Your task to perform on an android device: delete a single message in the gmail app Image 0: 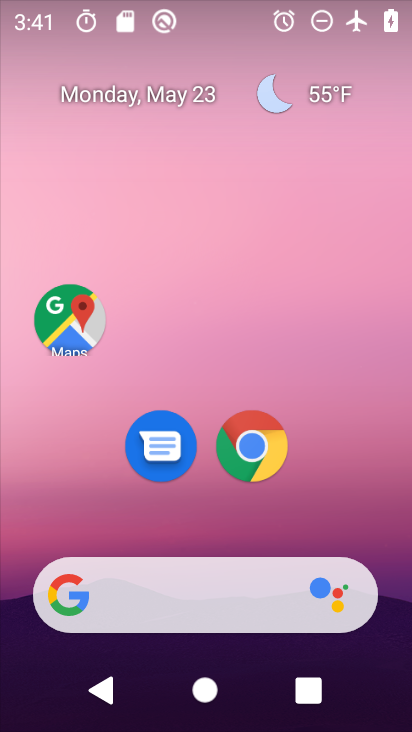
Step 0: drag from (218, 531) to (194, 191)
Your task to perform on an android device: delete a single message in the gmail app Image 1: 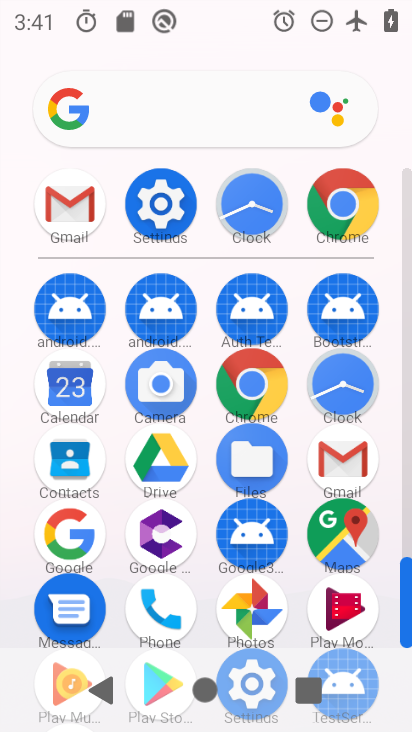
Step 1: click (317, 458)
Your task to perform on an android device: delete a single message in the gmail app Image 2: 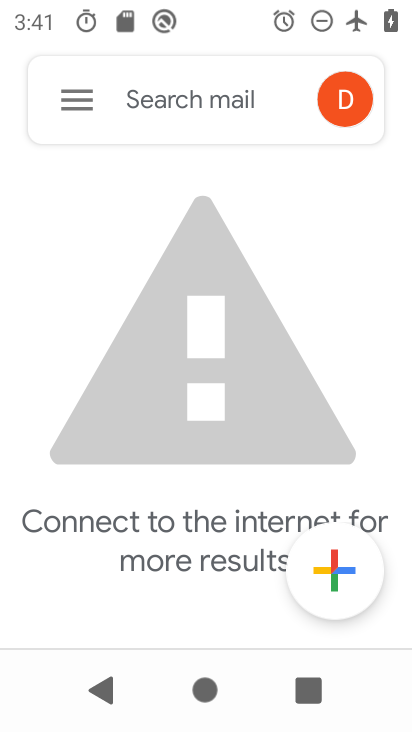
Step 2: click (62, 92)
Your task to perform on an android device: delete a single message in the gmail app Image 3: 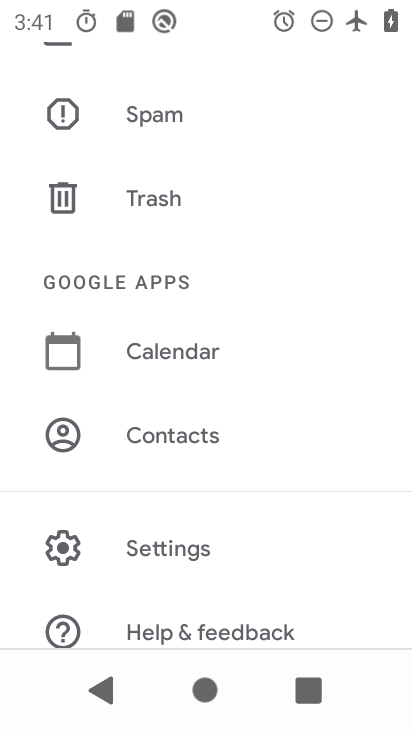
Step 3: drag from (180, 240) to (209, 552)
Your task to perform on an android device: delete a single message in the gmail app Image 4: 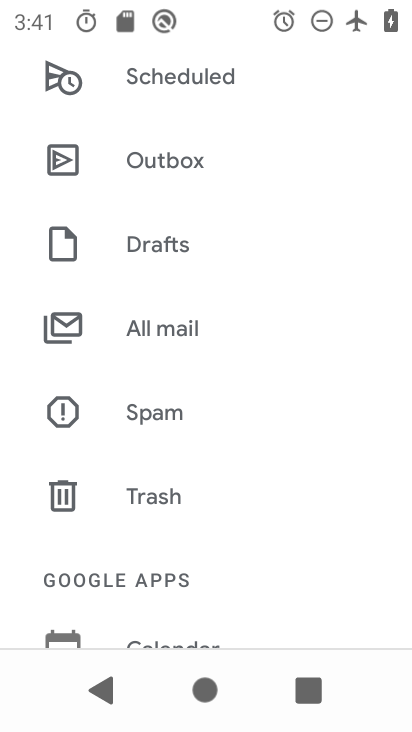
Step 4: click (172, 318)
Your task to perform on an android device: delete a single message in the gmail app Image 5: 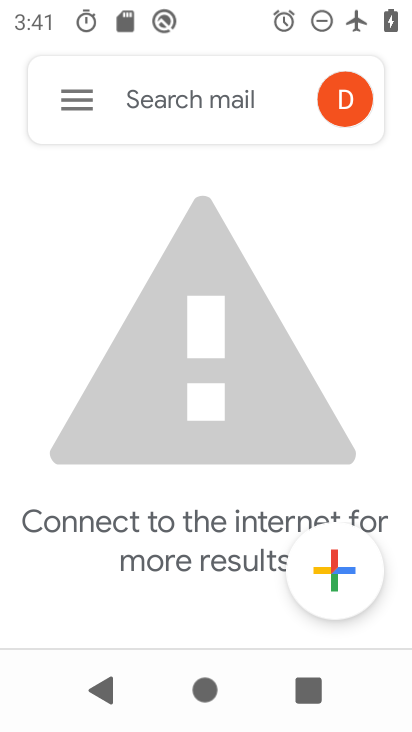
Step 5: task complete